Your task to perform on an android device: Turn off the flashlight Image 0: 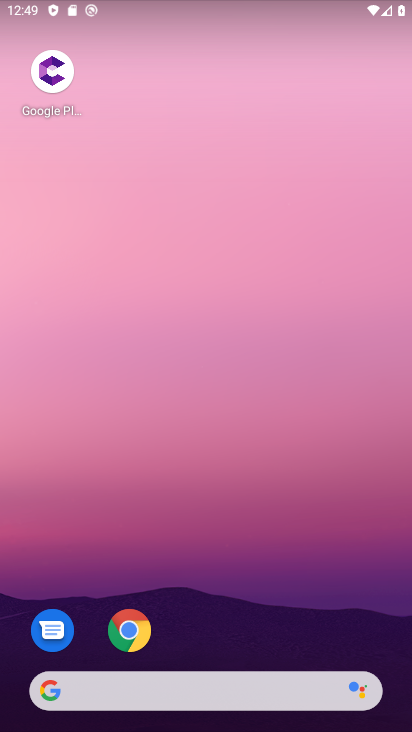
Step 0: drag from (265, 624) to (222, 94)
Your task to perform on an android device: Turn off the flashlight Image 1: 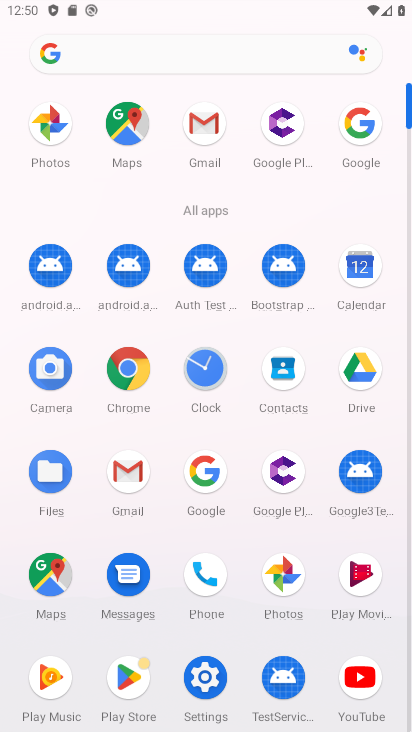
Step 1: click (212, 676)
Your task to perform on an android device: Turn off the flashlight Image 2: 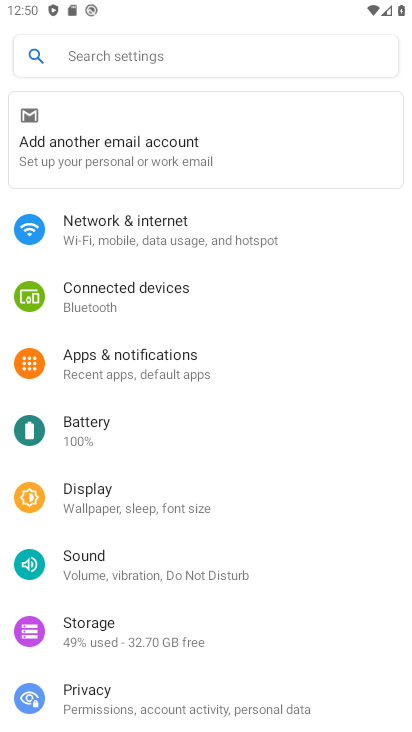
Step 2: click (202, 61)
Your task to perform on an android device: Turn off the flashlight Image 3: 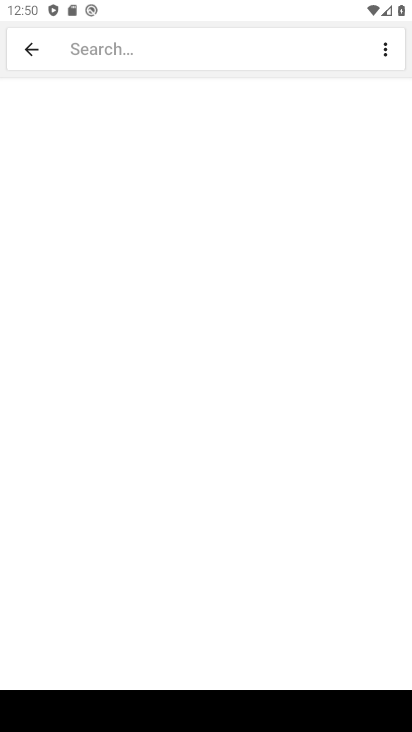
Step 3: type "flashlight"
Your task to perform on an android device: Turn off the flashlight Image 4: 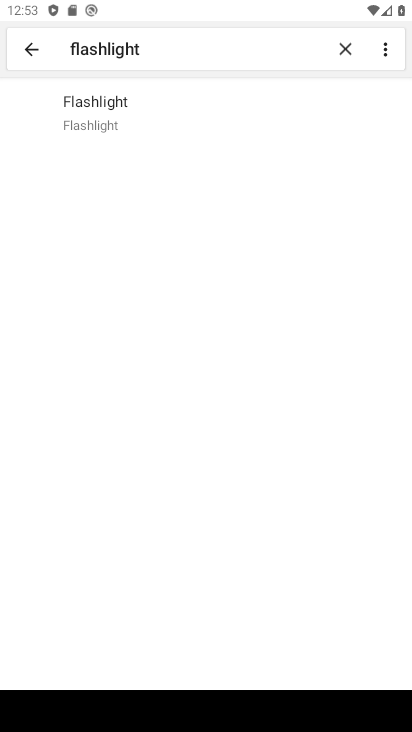
Step 4: task complete